Your task to perform on an android device: Open privacy settings Image 0: 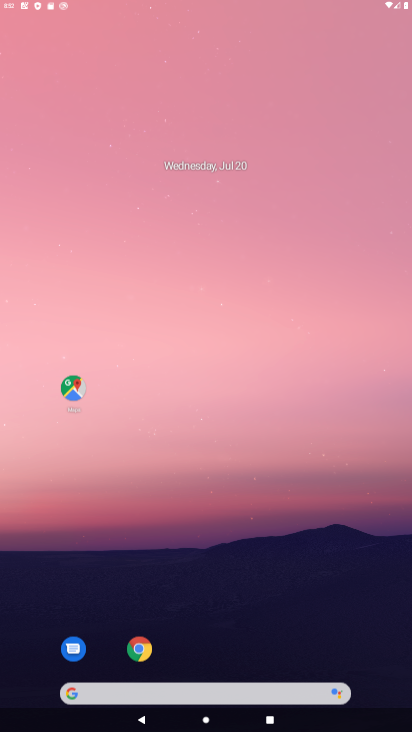
Step 0: press home button
Your task to perform on an android device: Open privacy settings Image 1: 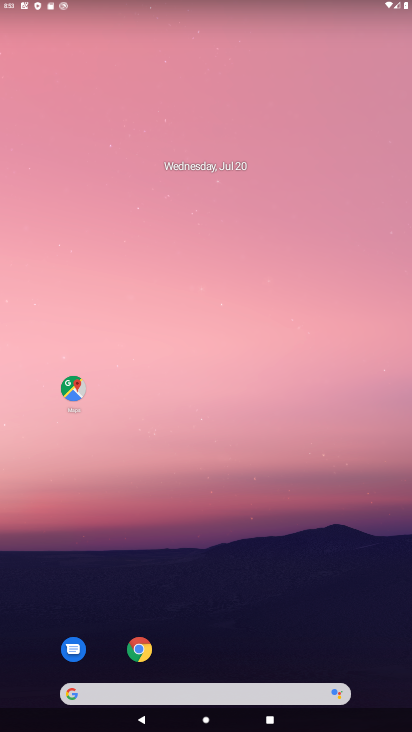
Step 1: drag from (216, 656) to (208, 83)
Your task to perform on an android device: Open privacy settings Image 2: 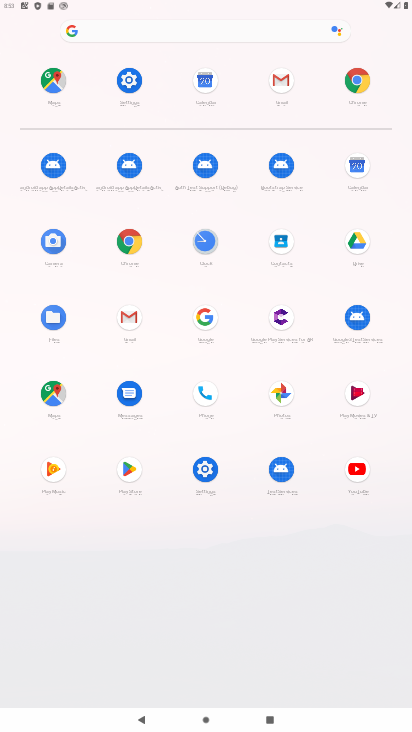
Step 2: click (133, 90)
Your task to perform on an android device: Open privacy settings Image 3: 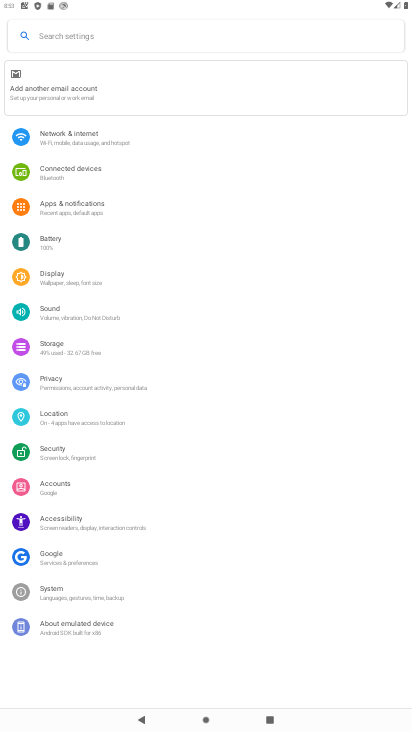
Step 3: click (118, 393)
Your task to perform on an android device: Open privacy settings Image 4: 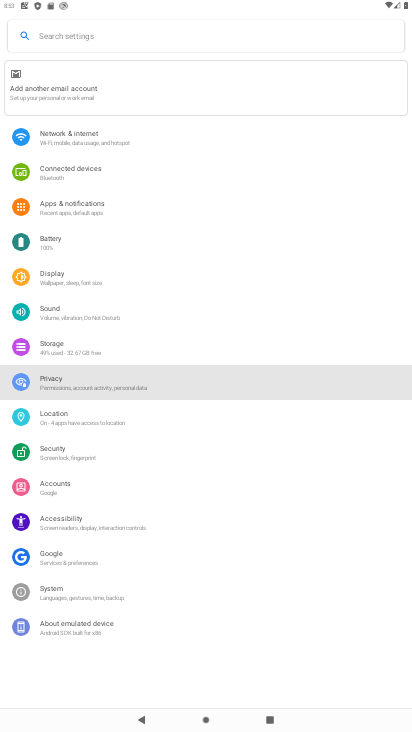
Step 4: task complete